Your task to perform on an android device: What's the weather going to be tomorrow? Image 0: 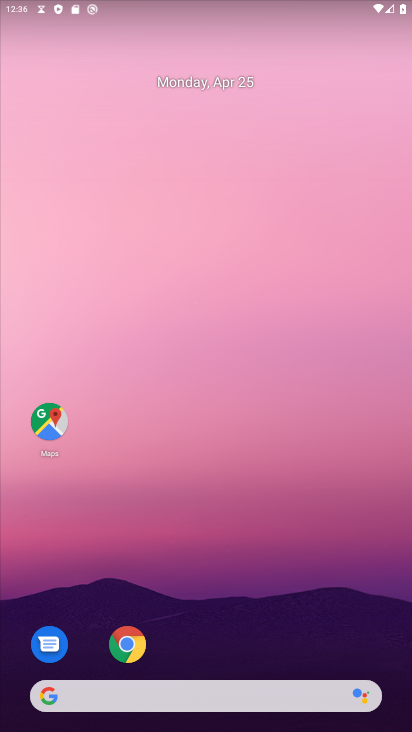
Step 0: click (163, 689)
Your task to perform on an android device: What's the weather going to be tomorrow? Image 1: 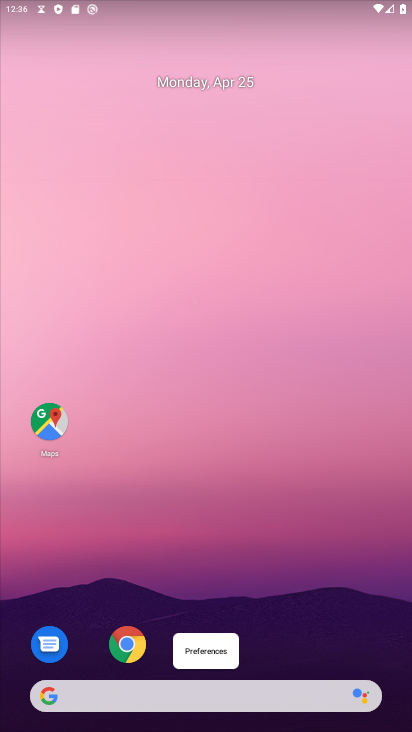
Step 1: click (185, 698)
Your task to perform on an android device: What's the weather going to be tomorrow? Image 2: 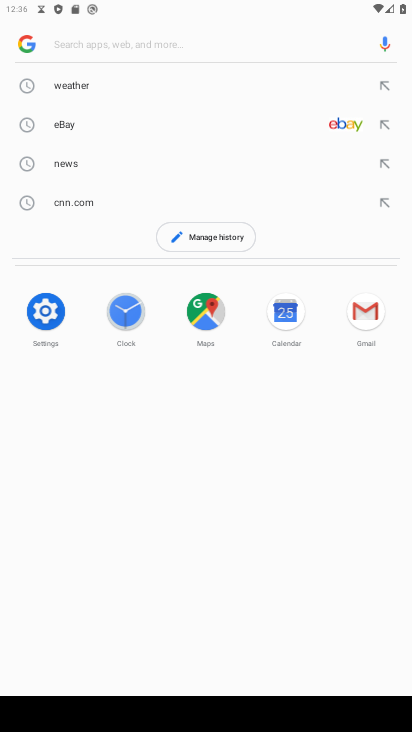
Step 2: click (68, 82)
Your task to perform on an android device: What's the weather going to be tomorrow? Image 3: 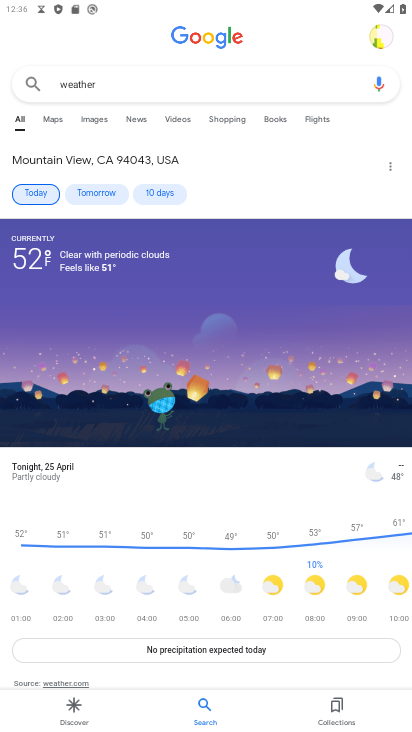
Step 3: click (102, 199)
Your task to perform on an android device: What's the weather going to be tomorrow? Image 4: 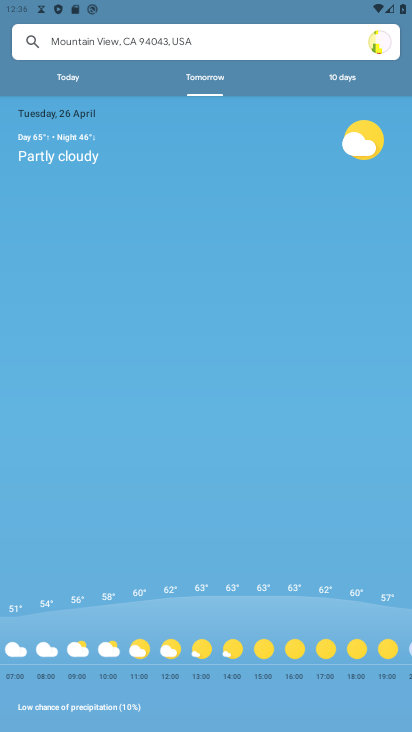
Step 4: task complete